Your task to perform on an android device: Open Chrome and go to settings Image 0: 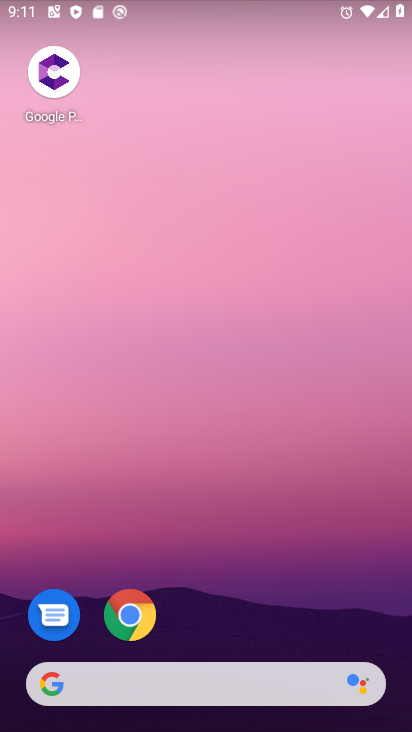
Step 0: click (140, 609)
Your task to perform on an android device: Open Chrome and go to settings Image 1: 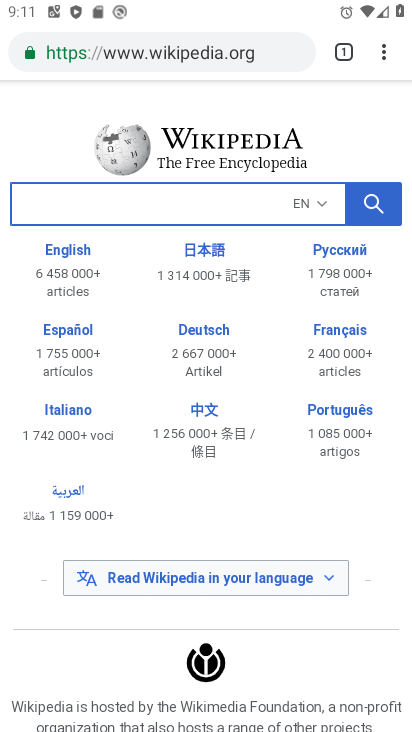
Step 1: click (388, 55)
Your task to perform on an android device: Open Chrome and go to settings Image 2: 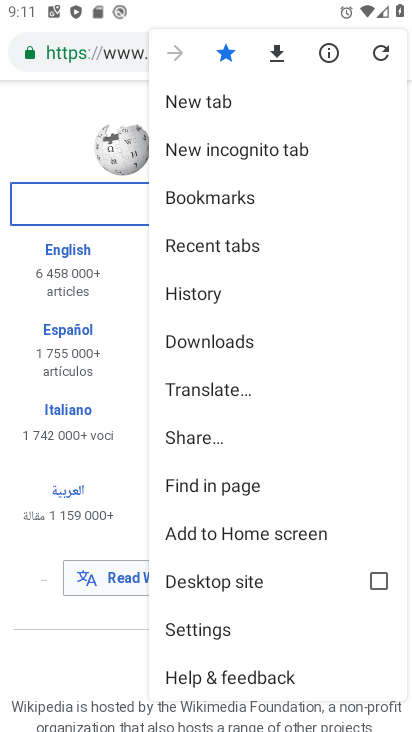
Step 2: click (243, 621)
Your task to perform on an android device: Open Chrome and go to settings Image 3: 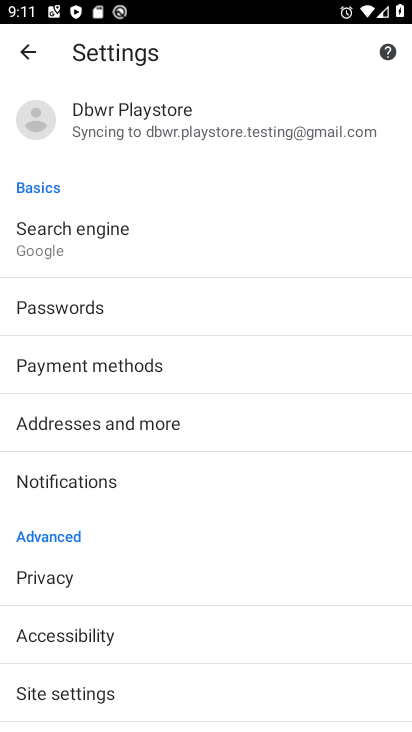
Step 3: task complete